Your task to perform on an android device: add a contact Image 0: 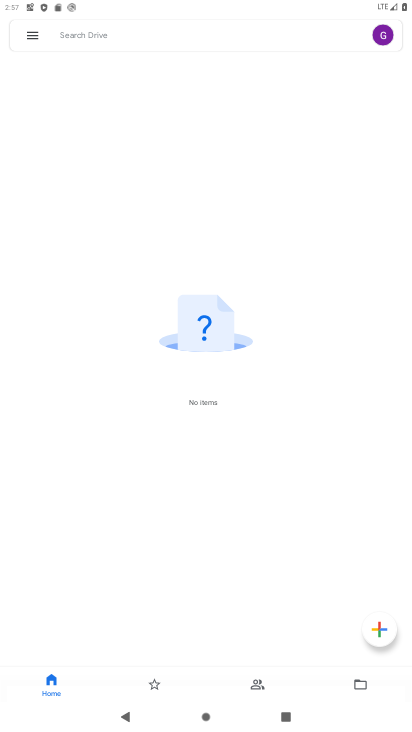
Step 0: press home button
Your task to perform on an android device: add a contact Image 1: 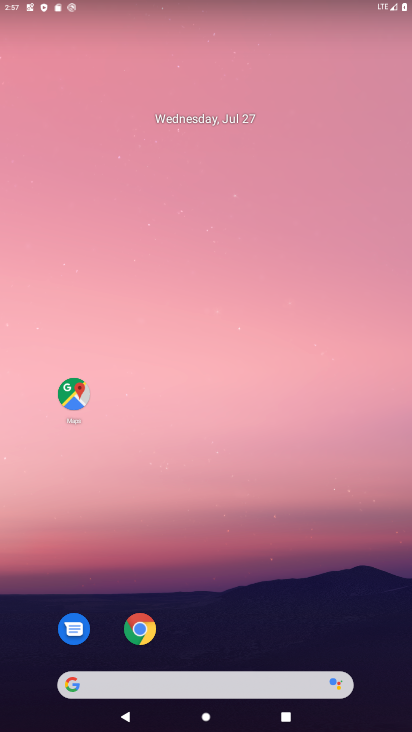
Step 1: drag from (192, 651) to (169, 177)
Your task to perform on an android device: add a contact Image 2: 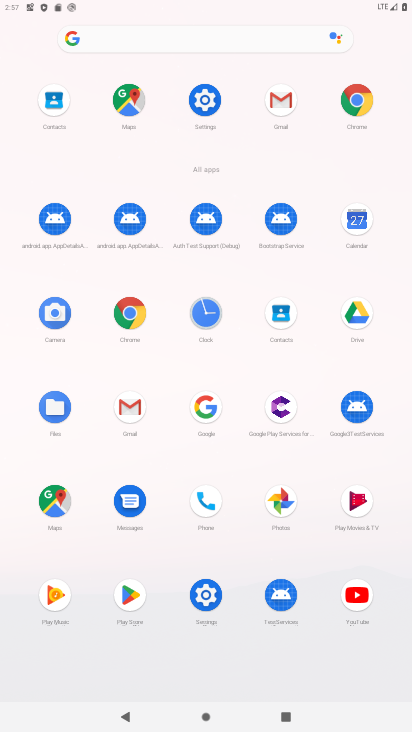
Step 2: click (287, 308)
Your task to perform on an android device: add a contact Image 3: 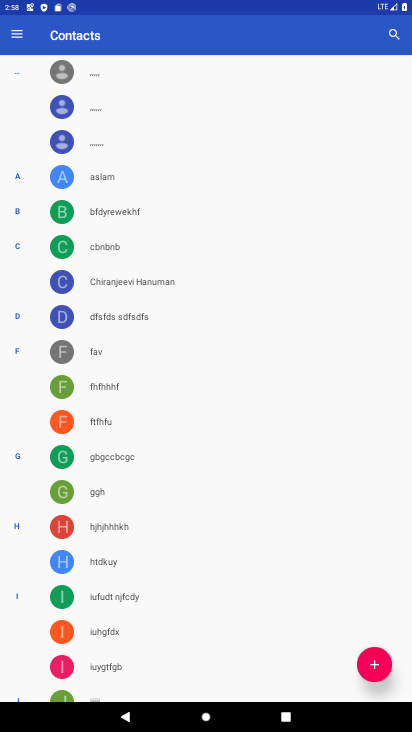
Step 3: click (374, 649)
Your task to perform on an android device: add a contact Image 4: 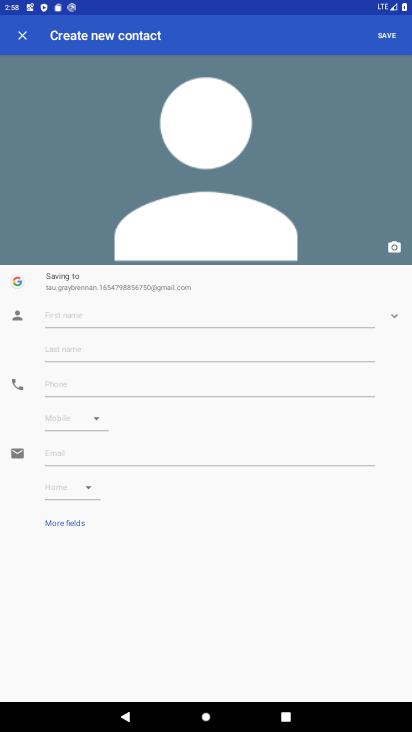
Step 4: type "oiuhgfdcx"
Your task to perform on an android device: add a contact Image 5: 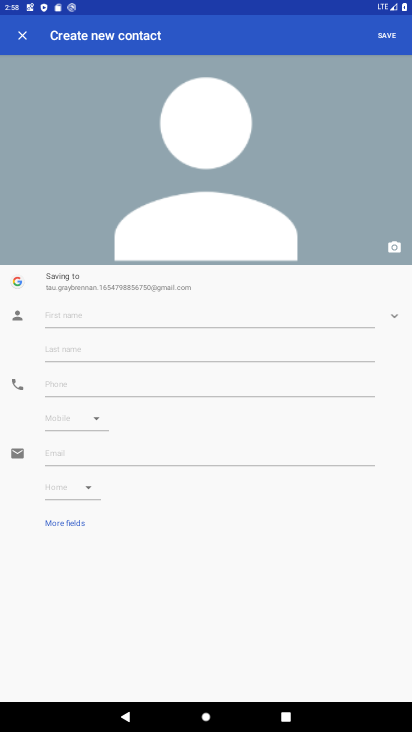
Step 5: click (76, 373)
Your task to perform on an android device: add a contact Image 6: 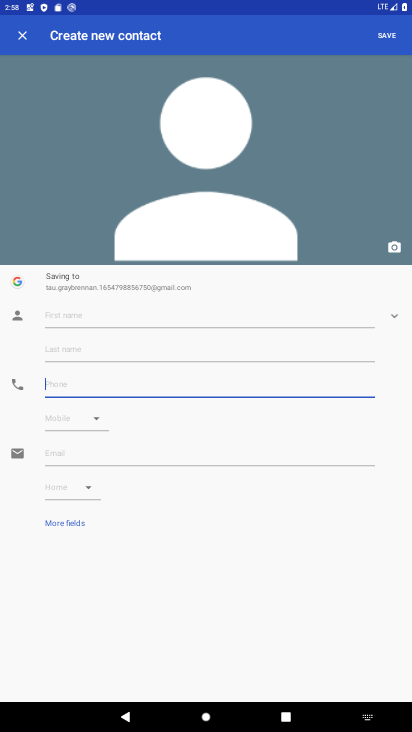
Step 6: type "23456789098765"
Your task to perform on an android device: add a contact Image 7: 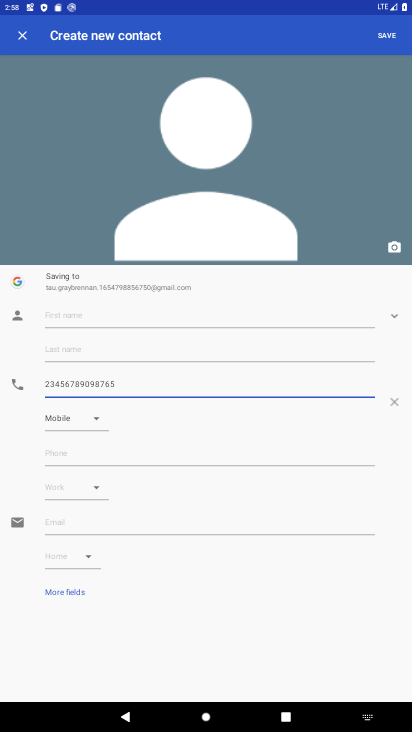
Step 7: click (382, 30)
Your task to perform on an android device: add a contact Image 8: 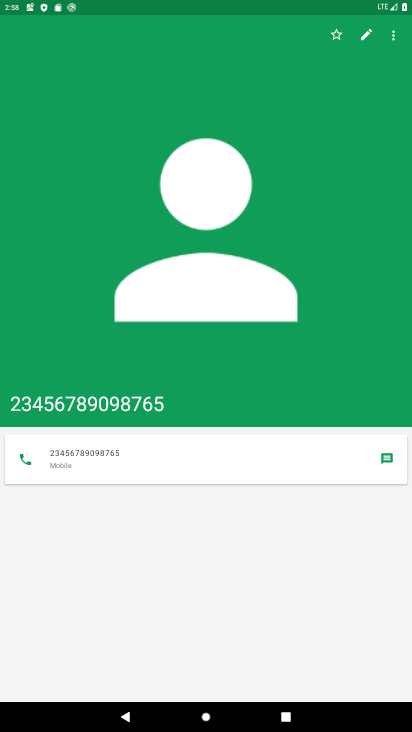
Step 8: task complete